Your task to perform on an android device: toggle translation in the chrome app Image 0: 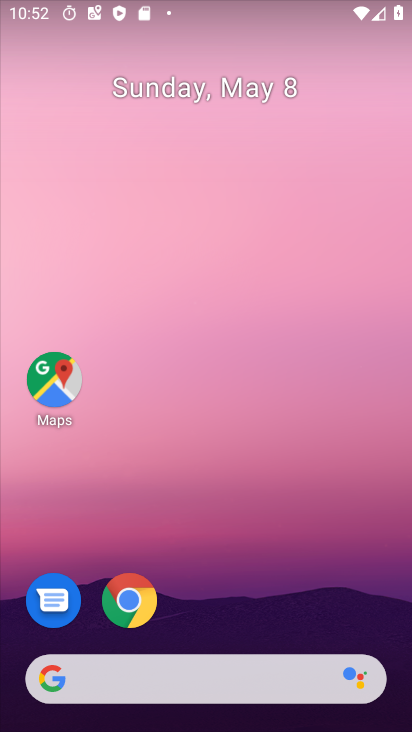
Step 0: click (129, 596)
Your task to perform on an android device: toggle translation in the chrome app Image 1: 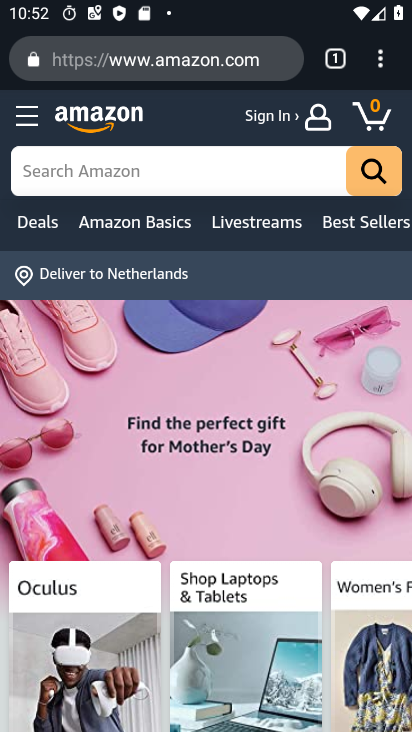
Step 1: click (386, 60)
Your task to perform on an android device: toggle translation in the chrome app Image 2: 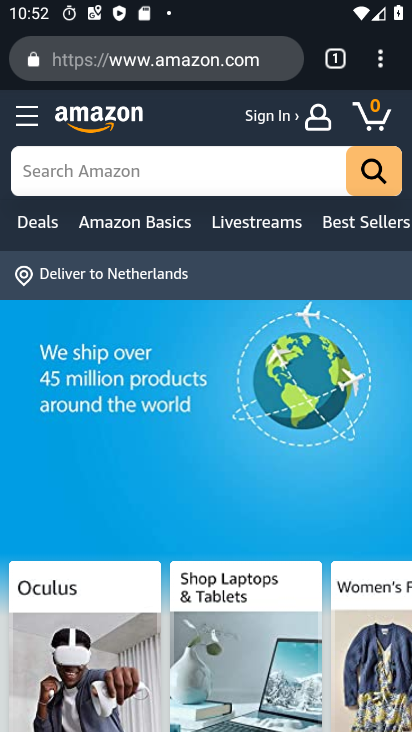
Step 2: click (373, 53)
Your task to perform on an android device: toggle translation in the chrome app Image 3: 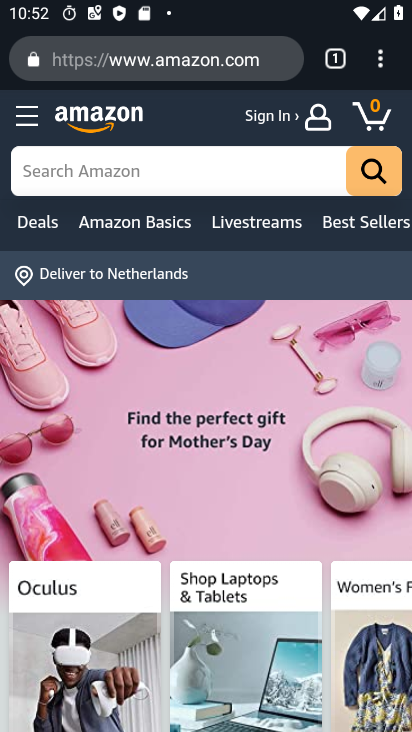
Step 3: click (382, 69)
Your task to perform on an android device: toggle translation in the chrome app Image 4: 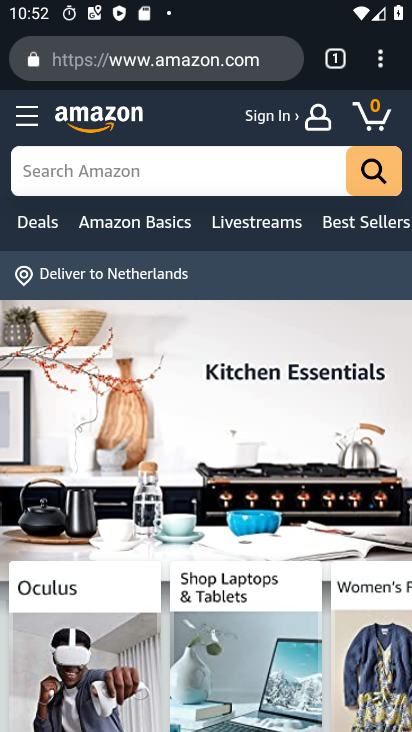
Step 4: click (379, 61)
Your task to perform on an android device: toggle translation in the chrome app Image 5: 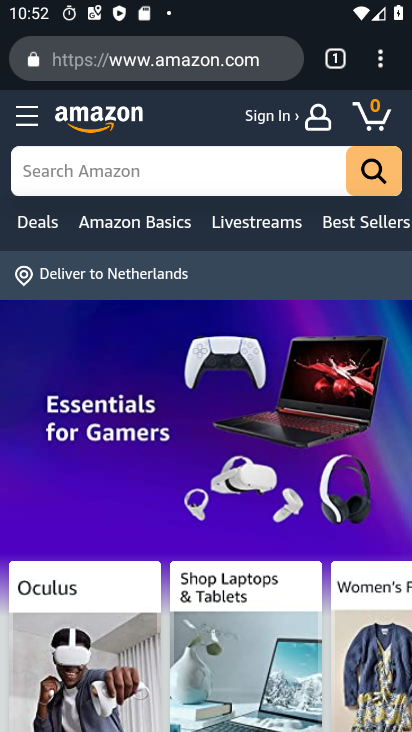
Step 5: click (382, 58)
Your task to perform on an android device: toggle translation in the chrome app Image 6: 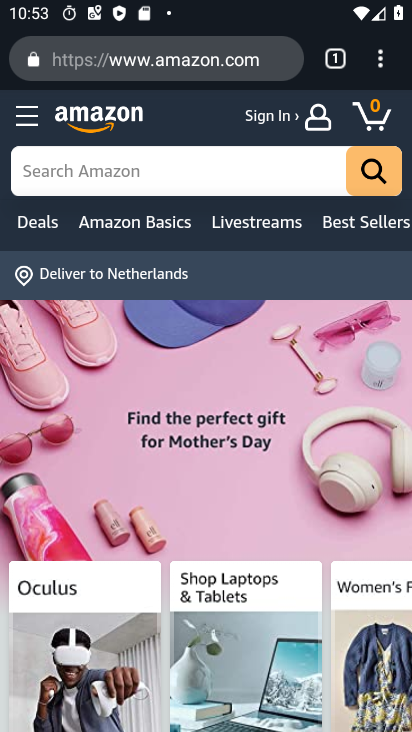
Step 6: click (380, 67)
Your task to perform on an android device: toggle translation in the chrome app Image 7: 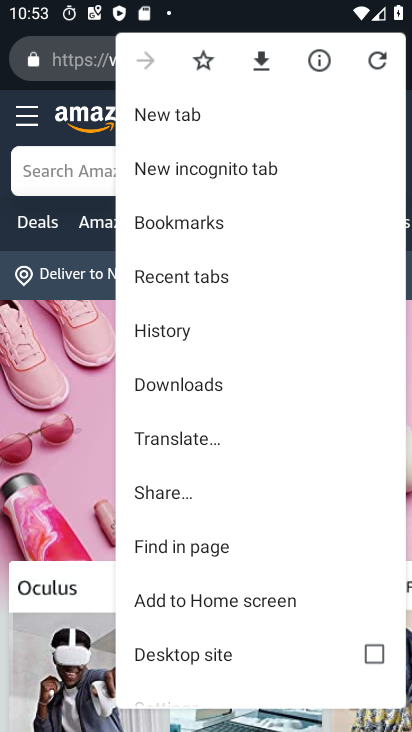
Step 7: drag from (172, 639) to (269, 219)
Your task to perform on an android device: toggle translation in the chrome app Image 8: 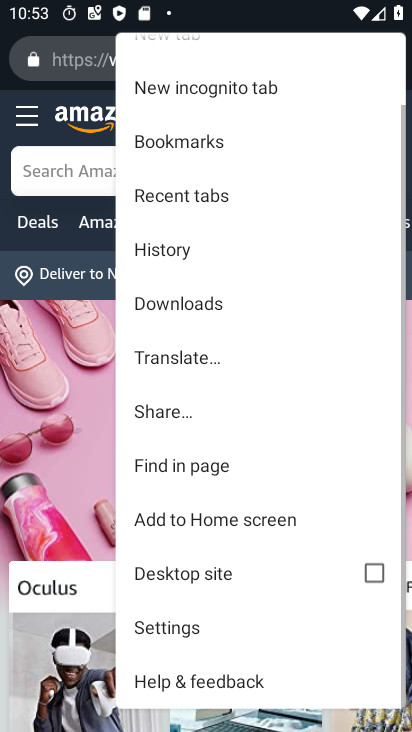
Step 8: click (201, 640)
Your task to perform on an android device: toggle translation in the chrome app Image 9: 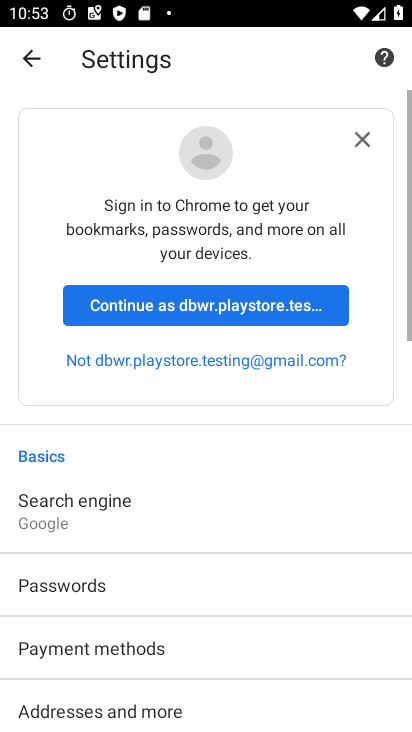
Step 9: drag from (128, 689) to (297, 99)
Your task to perform on an android device: toggle translation in the chrome app Image 10: 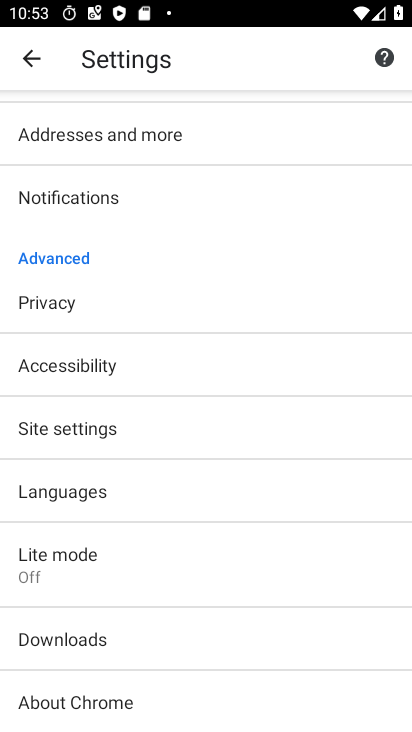
Step 10: drag from (133, 676) to (273, 279)
Your task to perform on an android device: toggle translation in the chrome app Image 11: 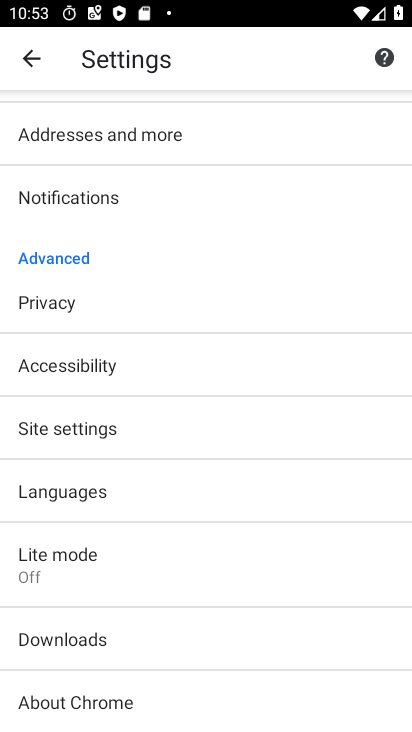
Step 11: click (99, 481)
Your task to perform on an android device: toggle translation in the chrome app Image 12: 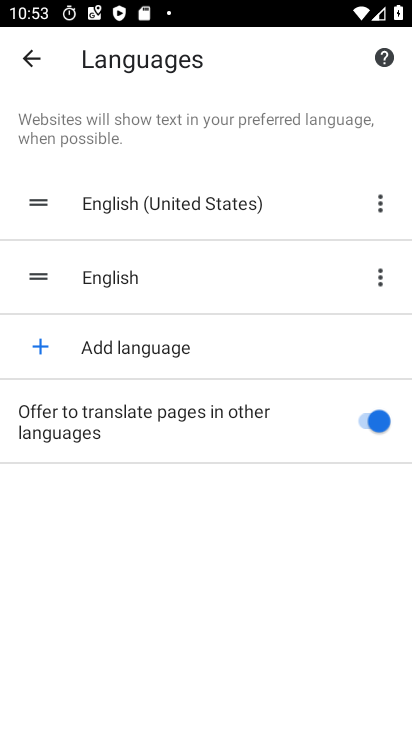
Step 12: click (379, 430)
Your task to perform on an android device: toggle translation in the chrome app Image 13: 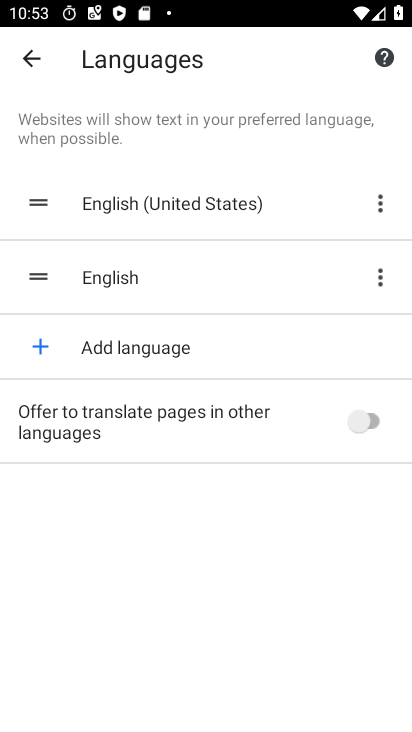
Step 13: task complete